Your task to perform on an android device: Open Google Maps and go to "Timeline" Image 0: 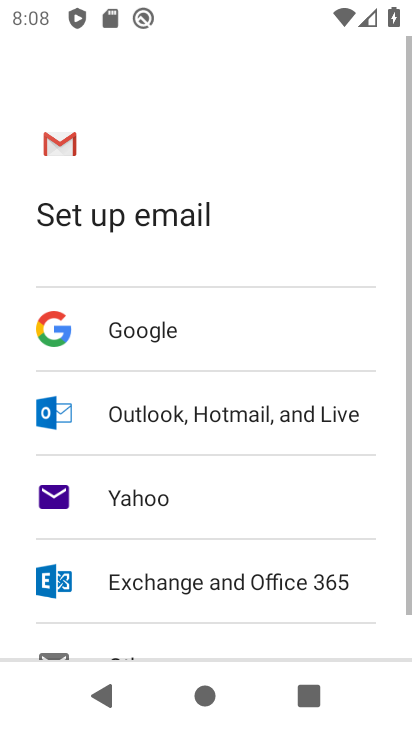
Step 0: press home button
Your task to perform on an android device: Open Google Maps and go to "Timeline" Image 1: 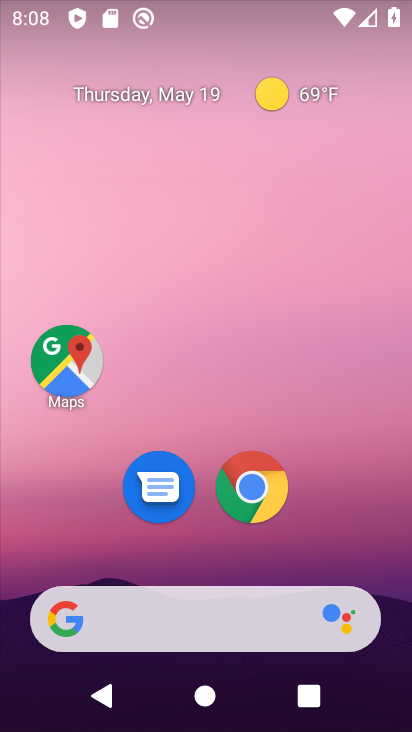
Step 1: drag from (243, 593) to (242, 38)
Your task to perform on an android device: Open Google Maps and go to "Timeline" Image 2: 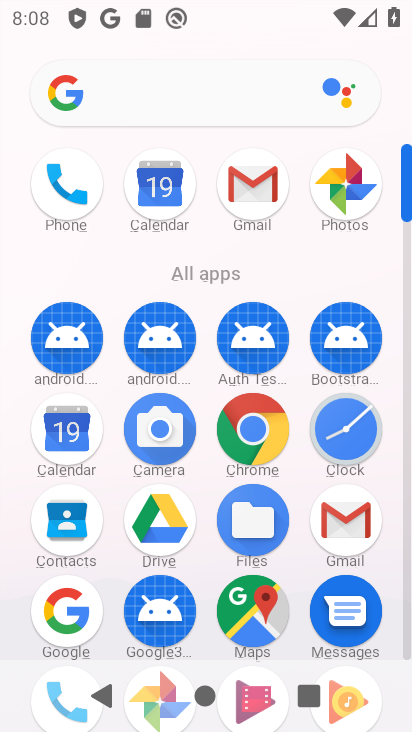
Step 2: click (265, 586)
Your task to perform on an android device: Open Google Maps and go to "Timeline" Image 3: 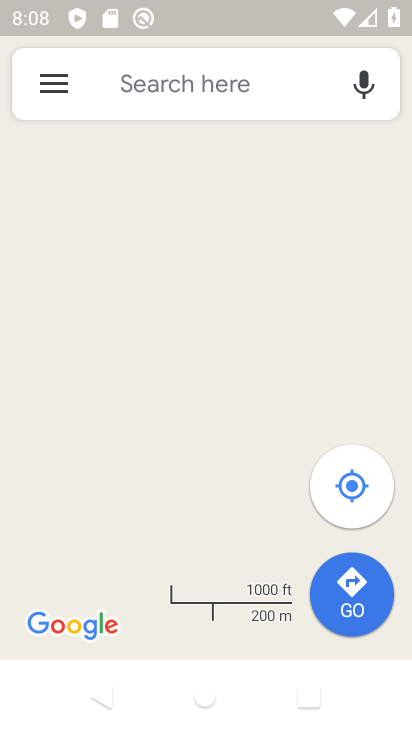
Step 3: click (48, 85)
Your task to perform on an android device: Open Google Maps and go to "Timeline" Image 4: 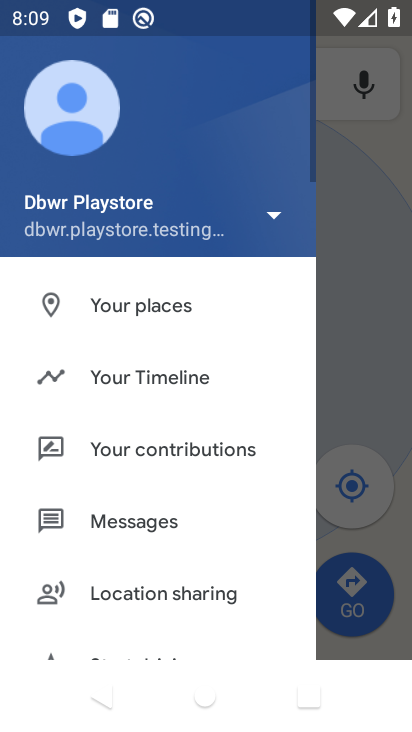
Step 4: click (109, 370)
Your task to perform on an android device: Open Google Maps and go to "Timeline" Image 5: 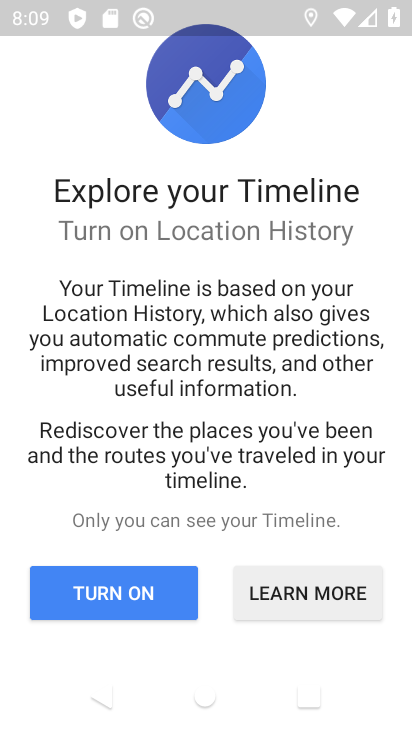
Step 5: drag from (212, 602) to (197, 228)
Your task to perform on an android device: Open Google Maps and go to "Timeline" Image 6: 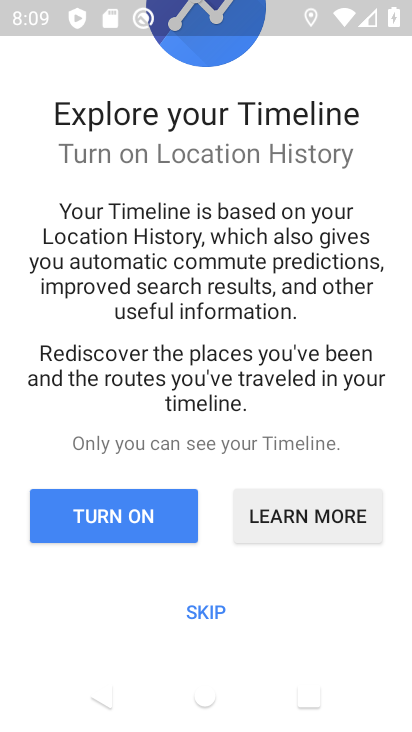
Step 6: click (201, 600)
Your task to perform on an android device: Open Google Maps and go to "Timeline" Image 7: 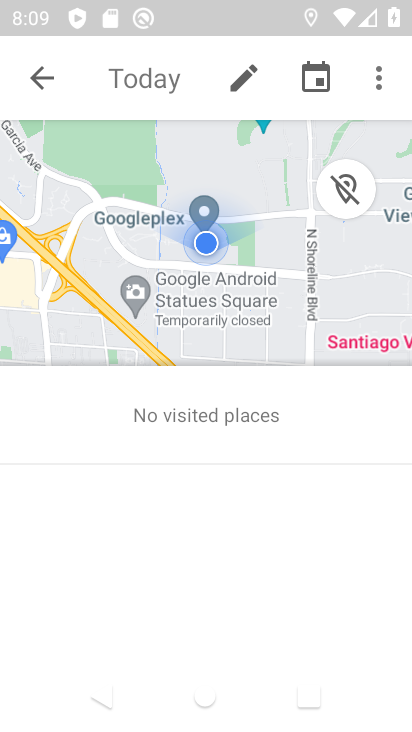
Step 7: task complete